Your task to perform on an android device: see creations saved in the google photos Image 0: 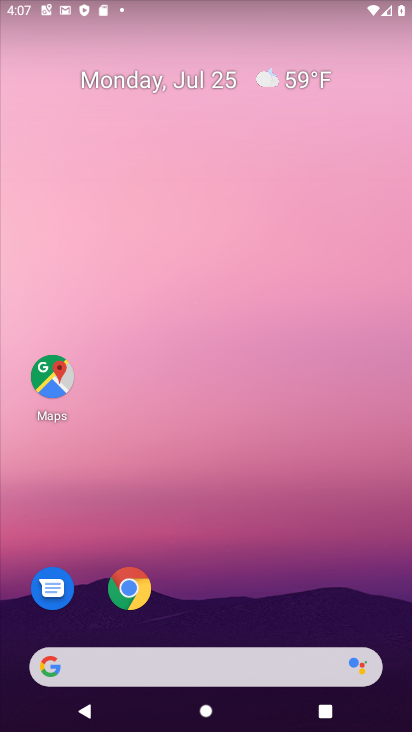
Step 0: drag from (290, 535) to (402, 595)
Your task to perform on an android device: see creations saved in the google photos Image 1: 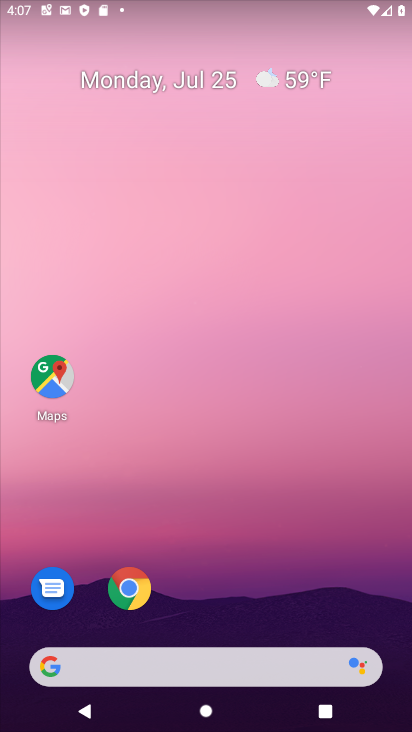
Step 1: drag from (207, 628) to (297, 39)
Your task to perform on an android device: see creations saved in the google photos Image 2: 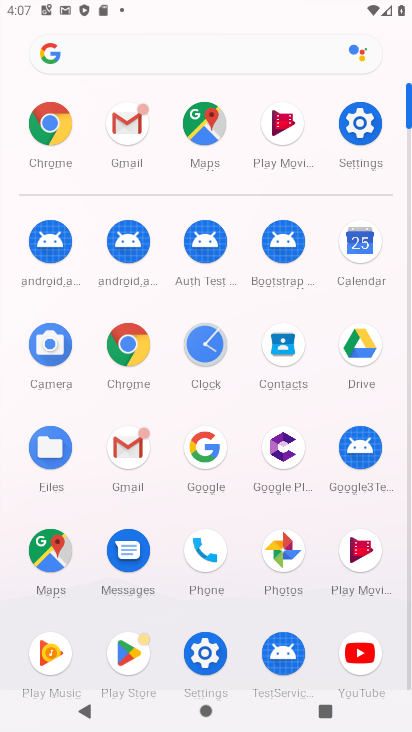
Step 2: click (275, 545)
Your task to perform on an android device: see creations saved in the google photos Image 3: 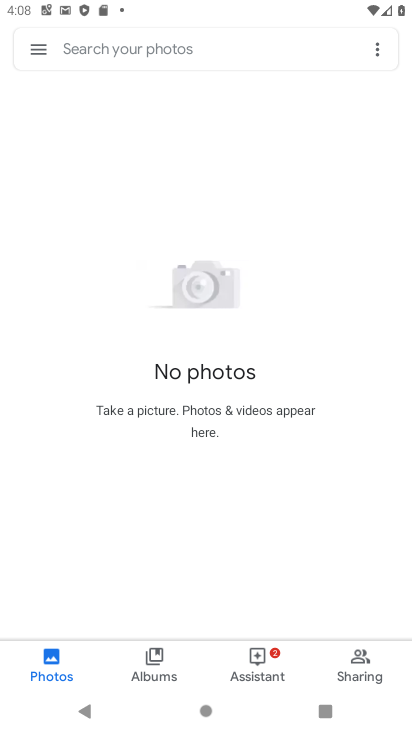
Step 3: click (86, 58)
Your task to perform on an android device: see creations saved in the google photos Image 4: 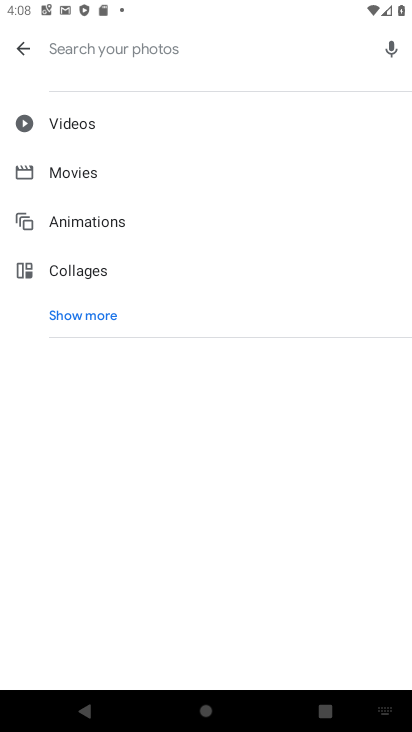
Step 4: click (86, 310)
Your task to perform on an android device: see creations saved in the google photos Image 5: 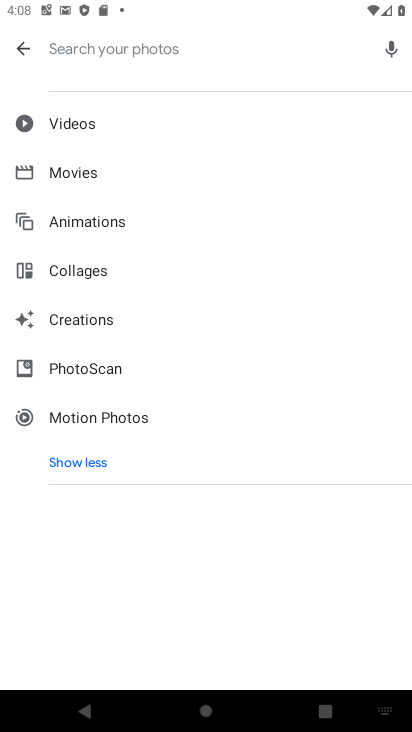
Step 5: click (80, 454)
Your task to perform on an android device: see creations saved in the google photos Image 6: 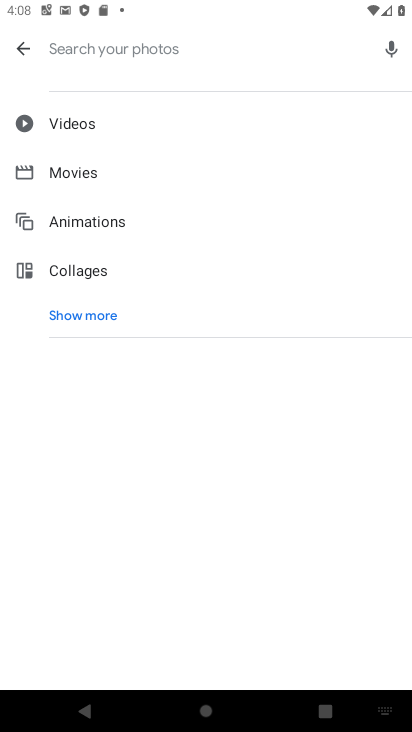
Step 6: click (92, 320)
Your task to perform on an android device: see creations saved in the google photos Image 7: 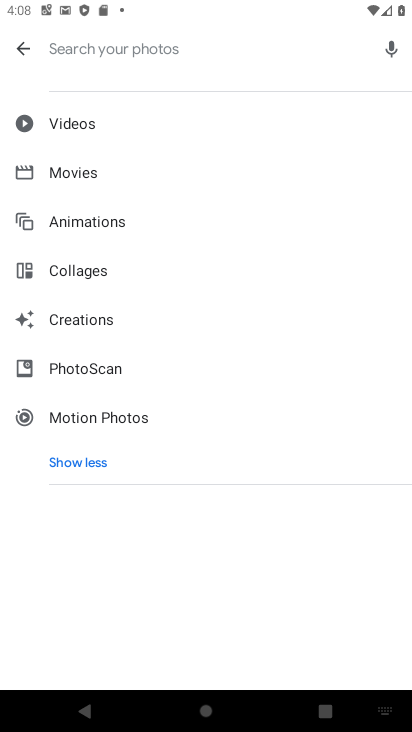
Step 7: click (99, 319)
Your task to perform on an android device: see creations saved in the google photos Image 8: 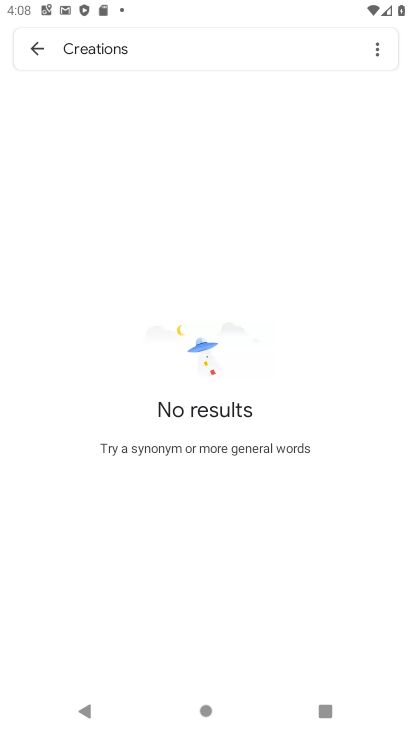
Step 8: task complete